Your task to perform on an android device: What is the recent news? Image 0: 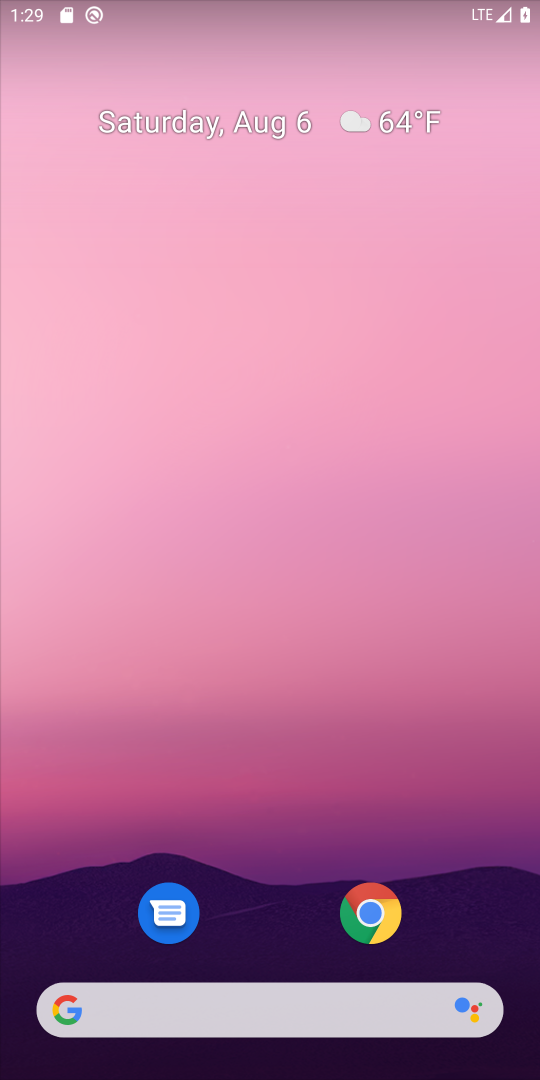
Step 0: press home button
Your task to perform on an android device: What is the recent news? Image 1: 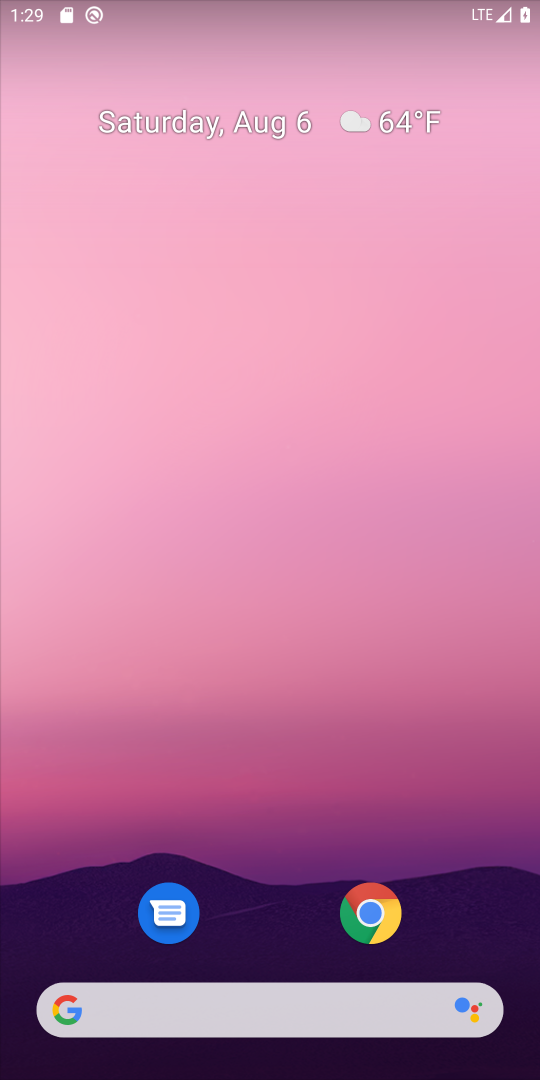
Step 1: task complete